Your task to perform on an android device: Open the map Image 0: 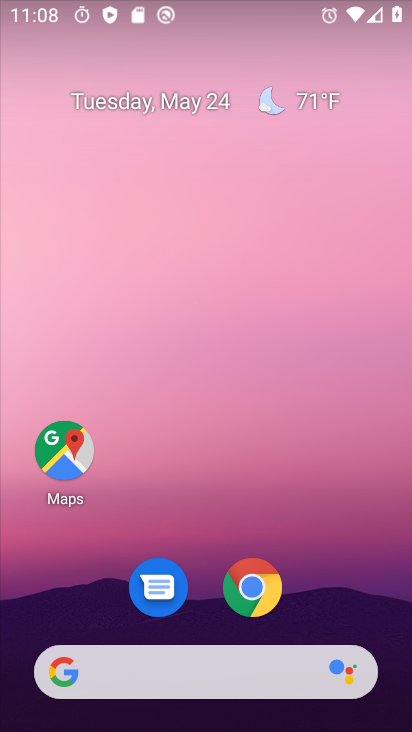
Step 0: drag from (303, 617) to (188, 10)
Your task to perform on an android device: Open the map Image 1: 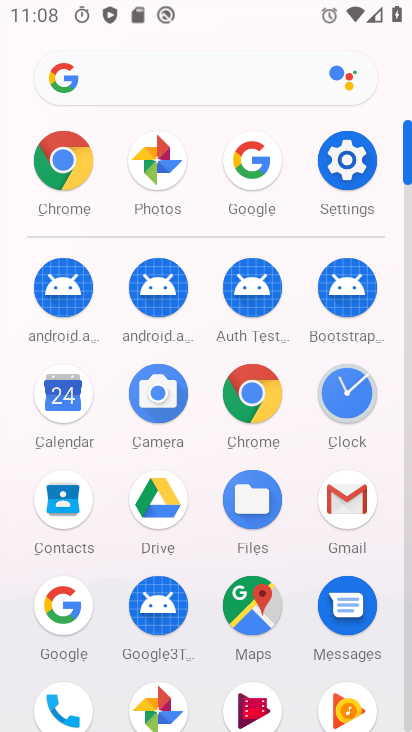
Step 1: click (271, 610)
Your task to perform on an android device: Open the map Image 2: 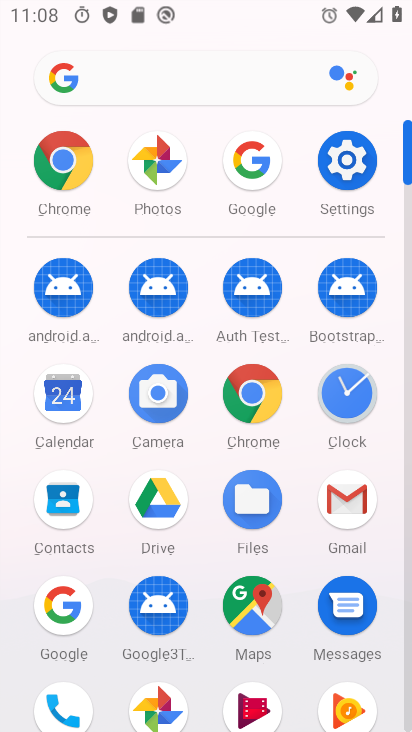
Step 2: click (265, 608)
Your task to perform on an android device: Open the map Image 3: 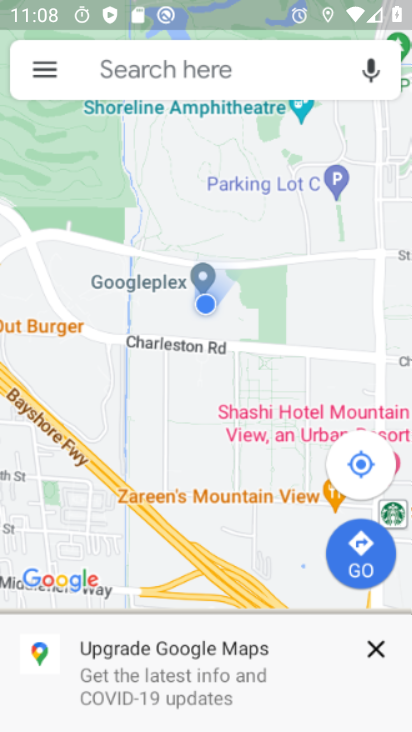
Step 3: click (256, 606)
Your task to perform on an android device: Open the map Image 4: 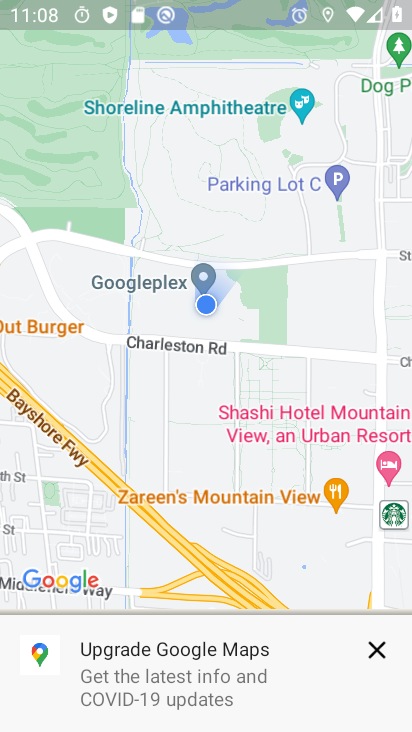
Step 4: task complete